Your task to perform on an android device: turn vacation reply on in the gmail app Image 0: 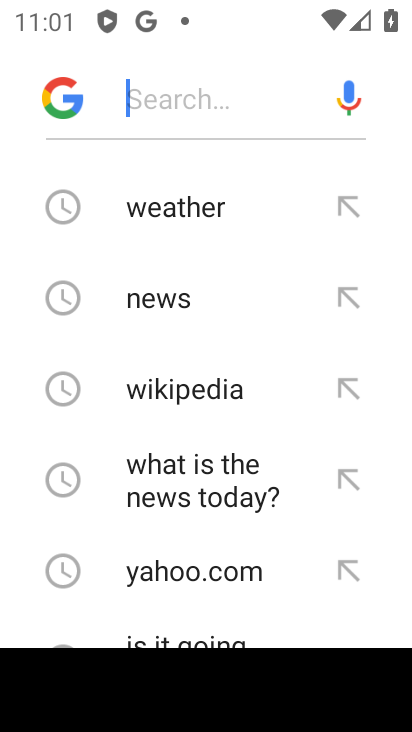
Step 0: press back button
Your task to perform on an android device: turn vacation reply on in the gmail app Image 1: 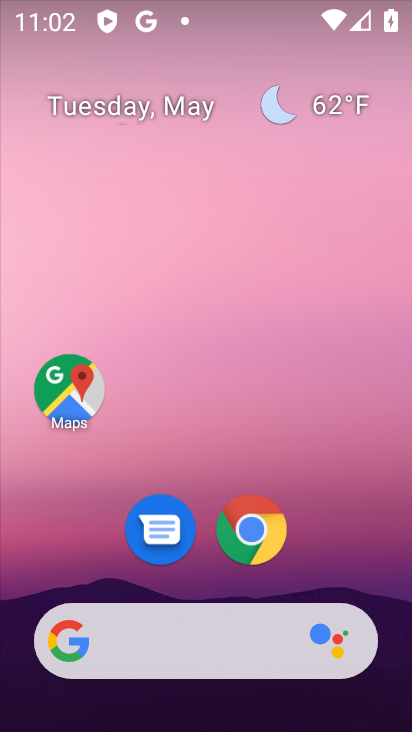
Step 1: drag from (159, 731) to (197, 87)
Your task to perform on an android device: turn vacation reply on in the gmail app Image 2: 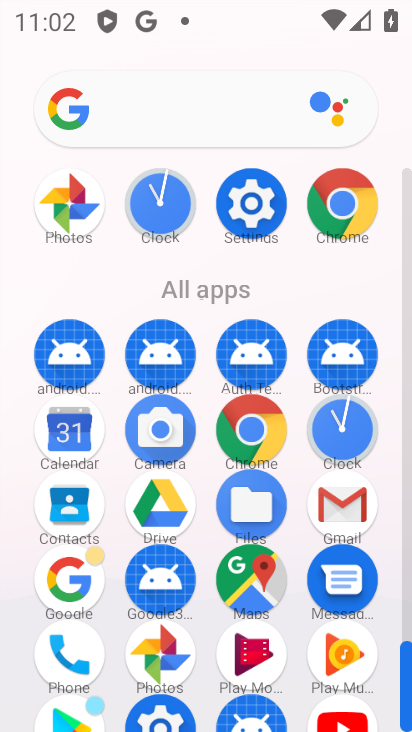
Step 2: click (331, 508)
Your task to perform on an android device: turn vacation reply on in the gmail app Image 3: 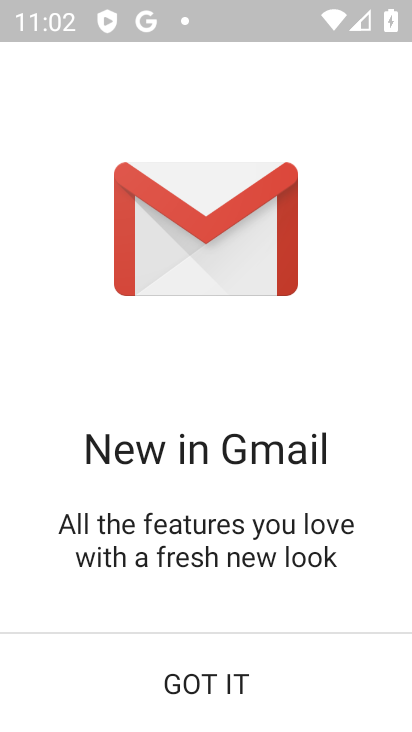
Step 3: click (190, 684)
Your task to perform on an android device: turn vacation reply on in the gmail app Image 4: 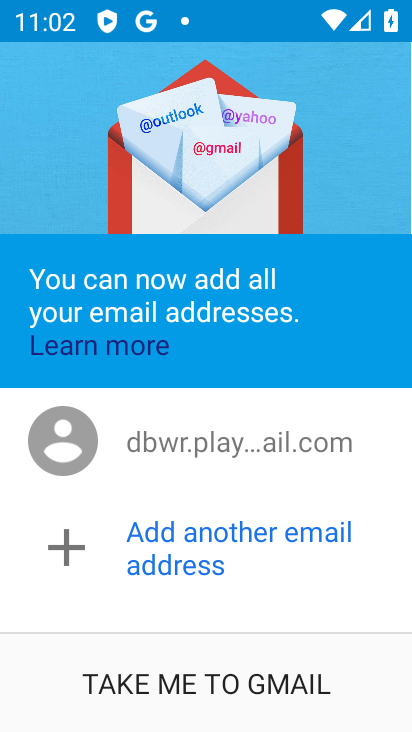
Step 4: click (190, 684)
Your task to perform on an android device: turn vacation reply on in the gmail app Image 5: 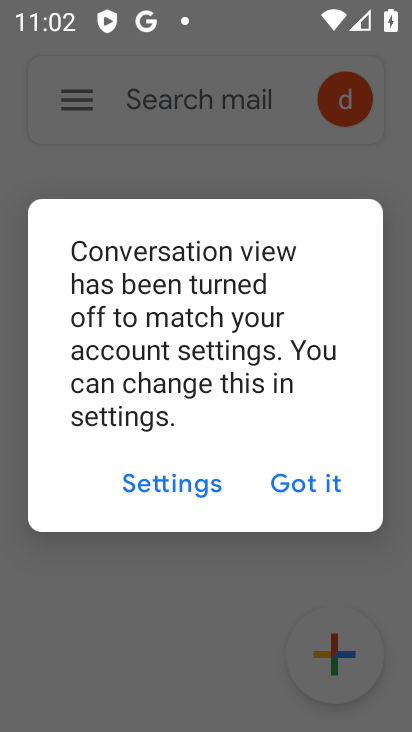
Step 5: click (279, 471)
Your task to perform on an android device: turn vacation reply on in the gmail app Image 6: 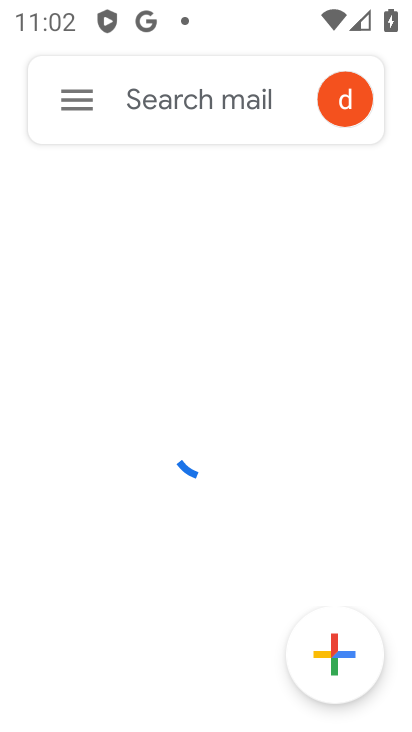
Step 6: click (55, 101)
Your task to perform on an android device: turn vacation reply on in the gmail app Image 7: 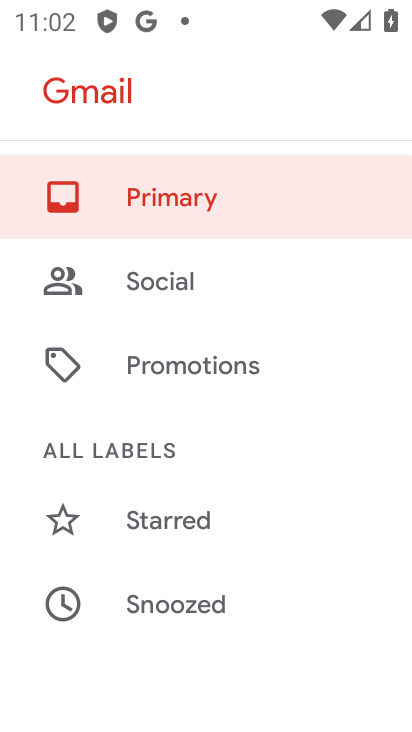
Step 7: drag from (191, 661) to (219, 198)
Your task to perform on an android device: turn vacation reply on in the gmail app Image 8: 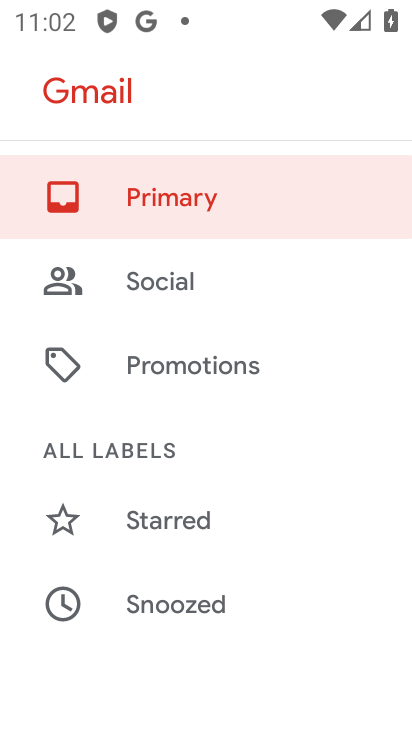
Step 8: drag from (295, 580) to (305, 192)
Your task to perform on an android device: turn vacation reply on in the gmail app Image 9: 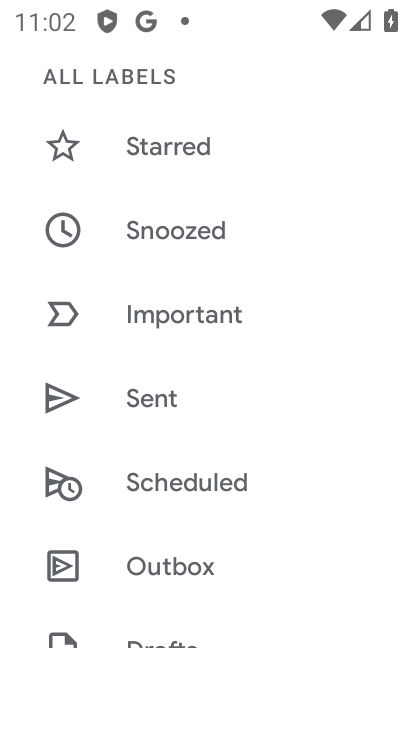
Step 9: drag from (265, 613) to (260, 135)
Your task to perform on an android device: turn vacation reply on in the gmail app Image 10: 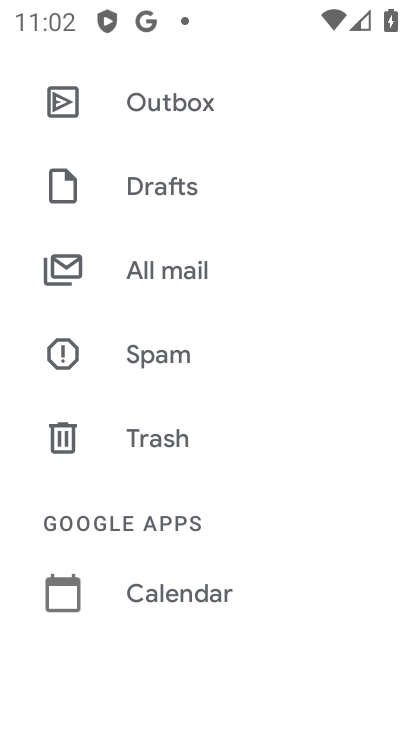
Step 10: drag from (301, 577) to (334, 120)
Your task to perform on an android device: turn vacation reply on in the gmail app Image 11: 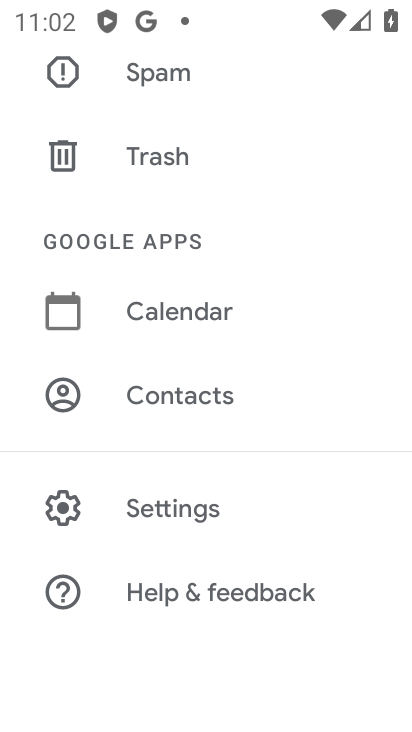
Step 11: click (170, 514)
Your task to perform on an android device: turn vacation reply on in the gmail app Image 12: 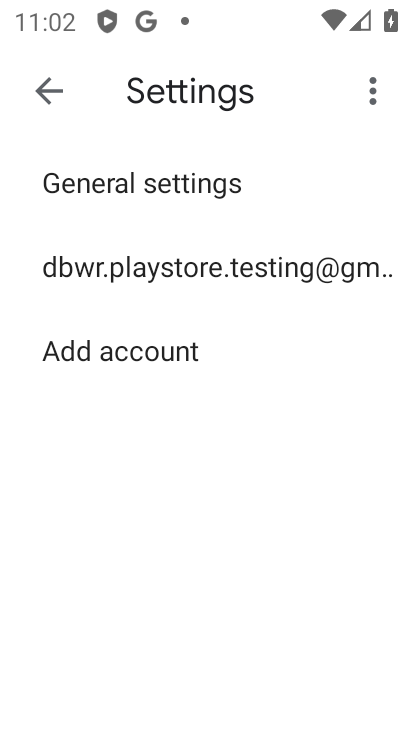
Step 12: click (214, 281)
Your task to perform on an android device: turn vacation reply on in the gmail app Image 13: 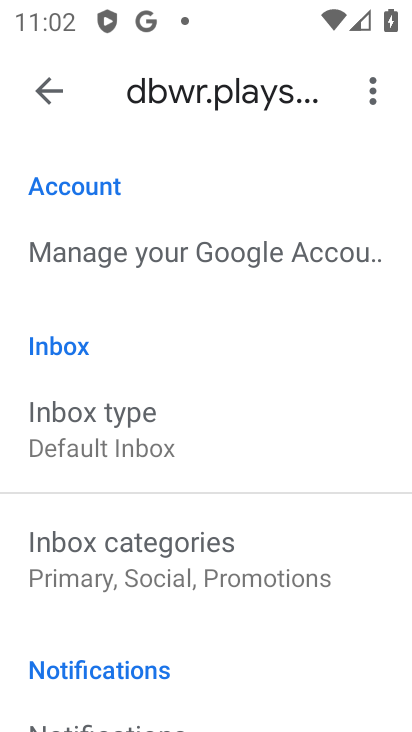
Step 13: drag from (196, 622) to (260, 145)
Your task to perform on an android device: turn vacation reply on in the gmail app Image 14: 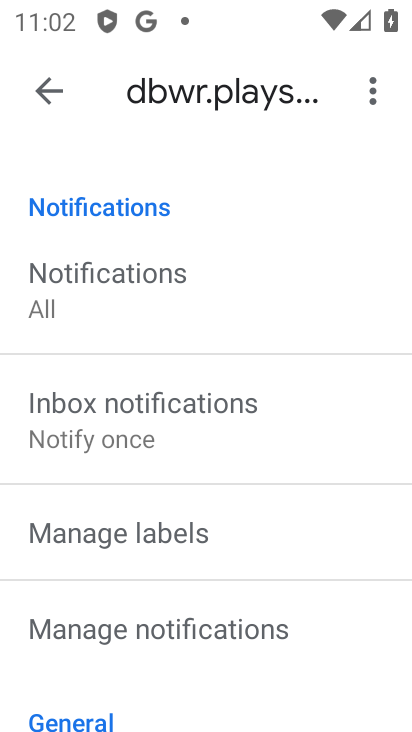
Step 14: drag from (168, 671) to (224, 151)
Your task to perform on an android device: turn vacation reply on in the gmail app Image 15: 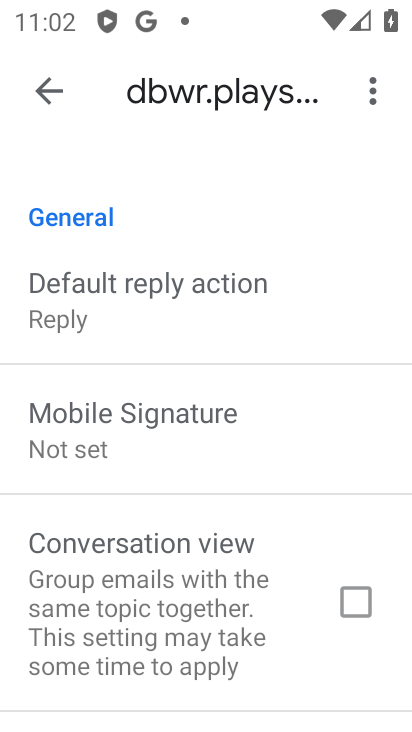
Step 15: drag from (158, 596) to (214, 184)
Your task to perform on an android device: turn vacation reply on in the gmail app Image 16: 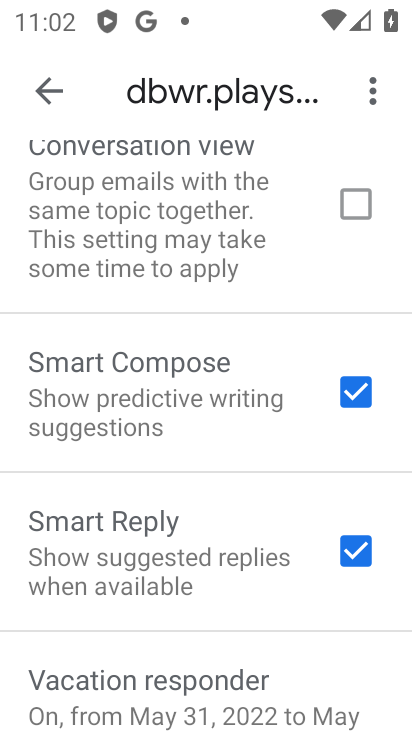
Step 16: click (183, 689)
Your task to perform on an android device: turn vacation reply on in the gmail app Image 17: 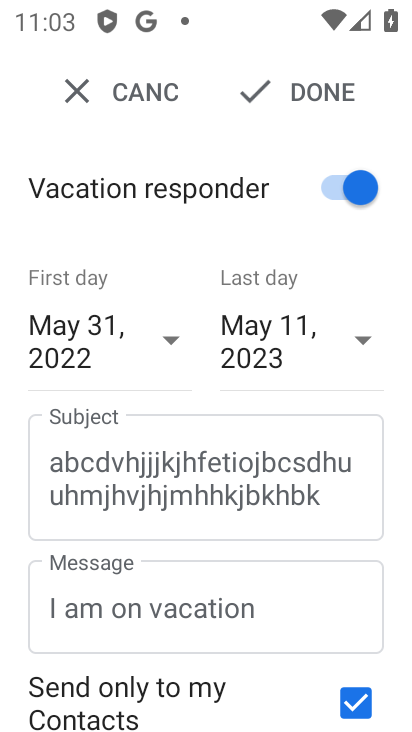
Step 17: click (332, 87)
Your task to perform on an android device: turn vacation reply on in the gmail app Image 18: 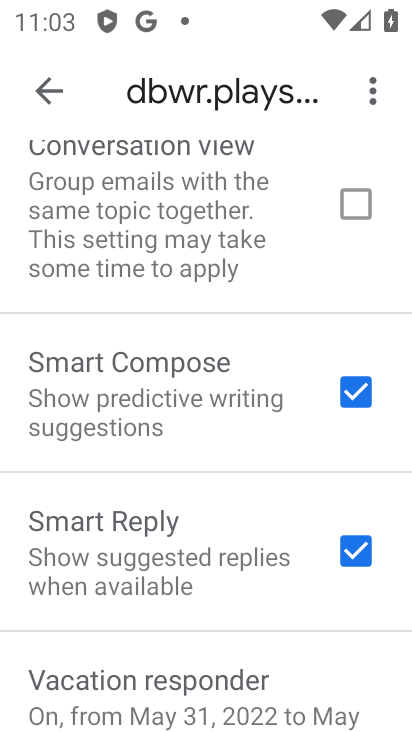
Step 18: task complete